Your task to perform on an android device: Search for logitech g502 on ebay, select the first entry, add it to the cart, then select checkout. Image 0: 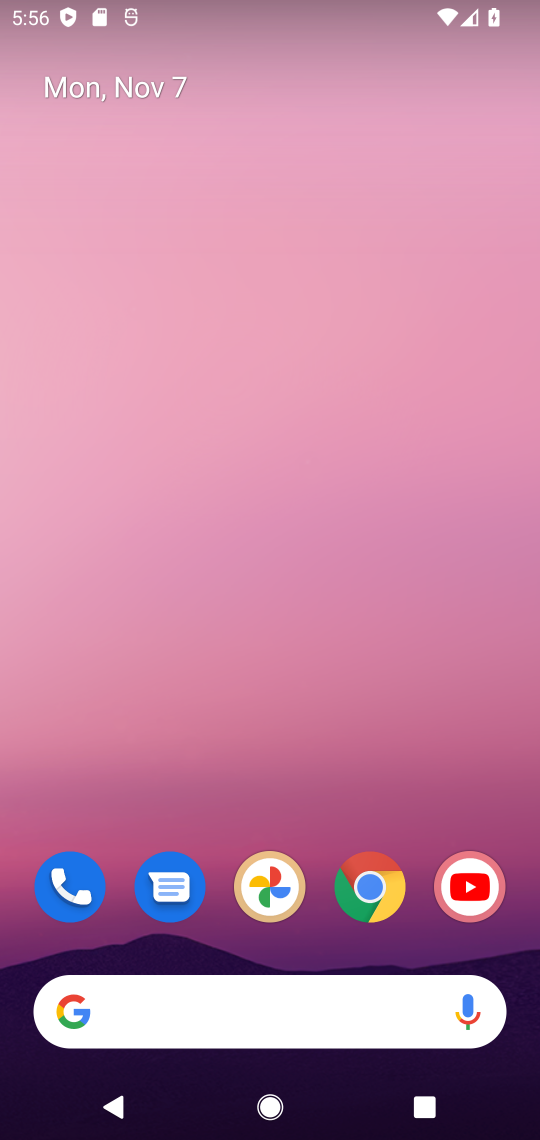
Step 0: click (377, 857)
Your task to perform on an android device: Search for logitech g502 on ebay, select the first entry, add it to the cart, then select checkout. Image 1: 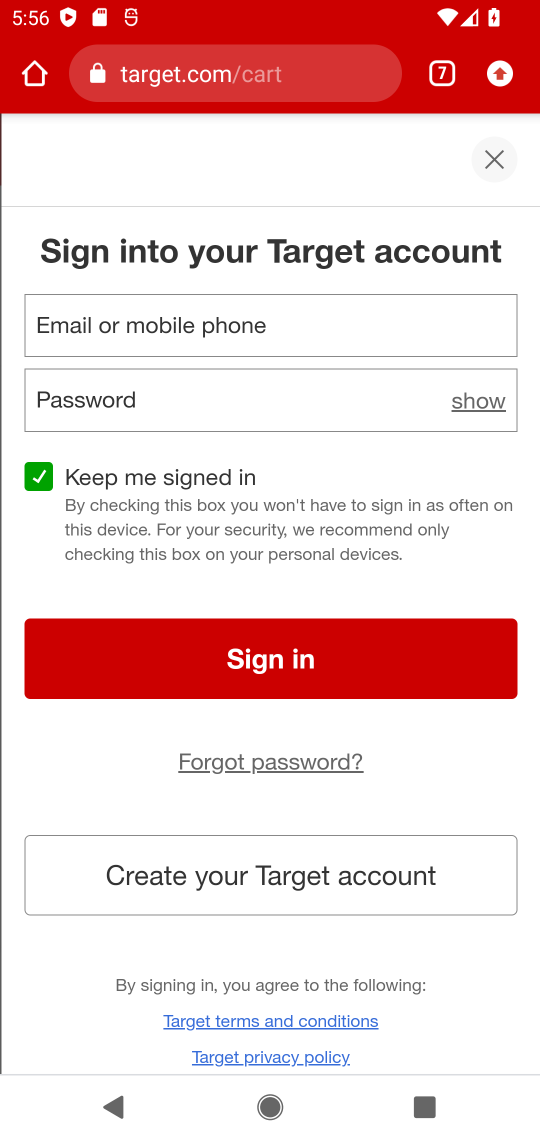
Step 1: click (442, 60)
Your task to perform on an android device: Search for logitech g502 on ebay, select the first entry, add it to the cart, then select checkout. Image 2: 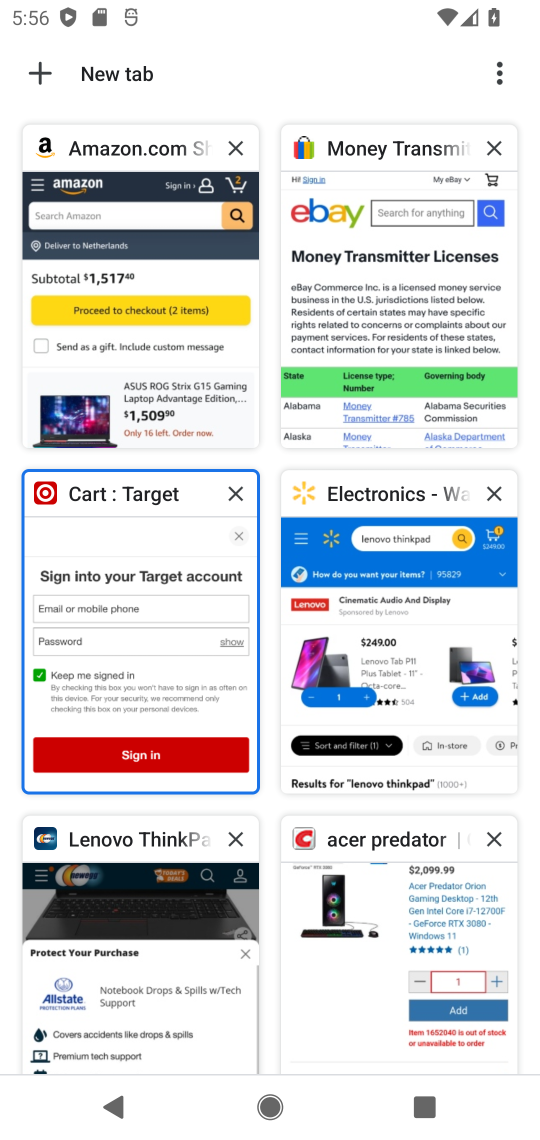
Step 2: click (326, 228)
Your task to perform on an android device: Search for logitech g502 on ebay, select the first entry, add it to the cart, then select checkout. Image 3: 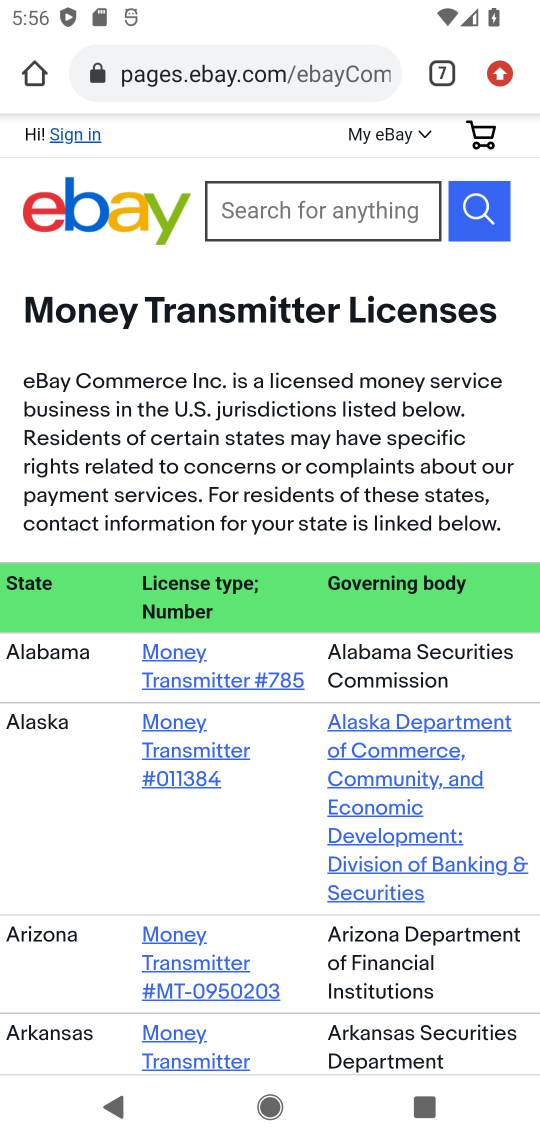
Step 3: click (294, 210)
Your task to perform on an android device: Search for logitech g502 on ebay, select the first entry, add it to the cart, then select checkout. Image 4: 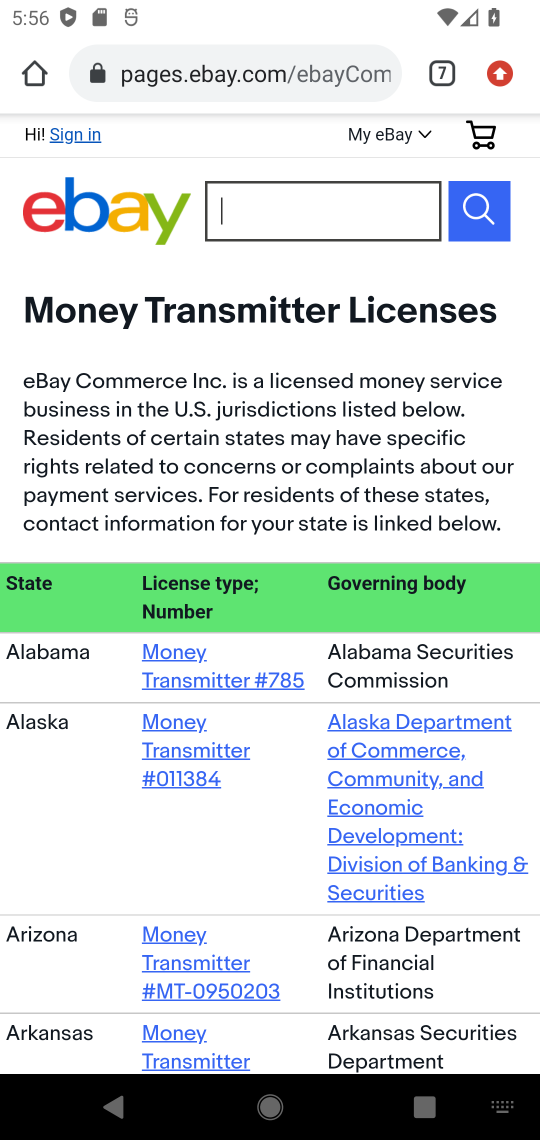
Step 4: type "logitech g502"
Your task to perform on an android device: Search for logitech g502 on ebay, select the first entry, add it to the cart, then select checkout. Image 5: 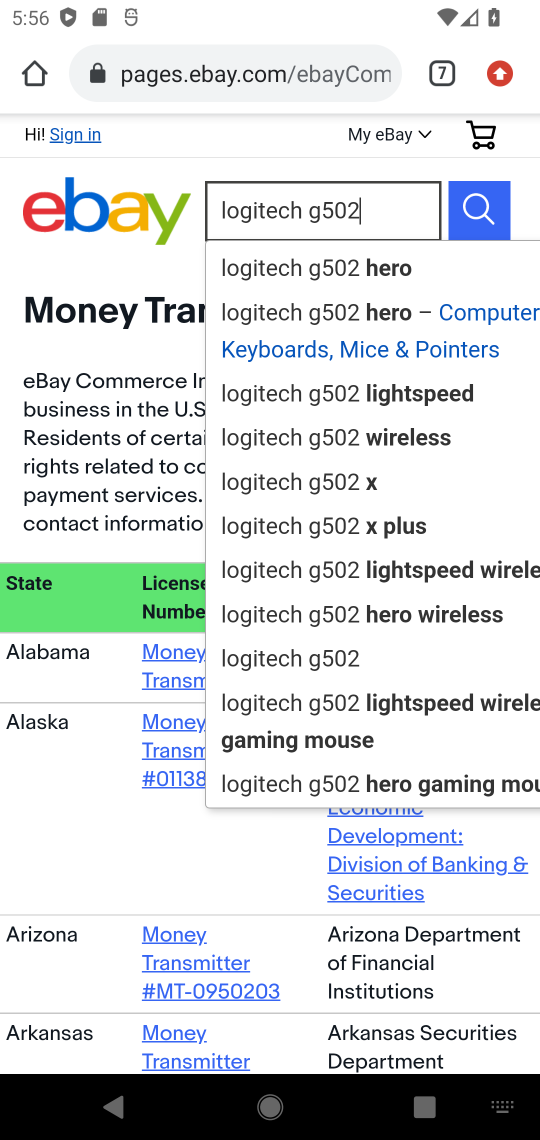
Step 5: click (343, 306)
Your task to perform on an android device: Search for logitech g502 on ebay, select the first entry, add it to the cart, then select checkout. Image 6: 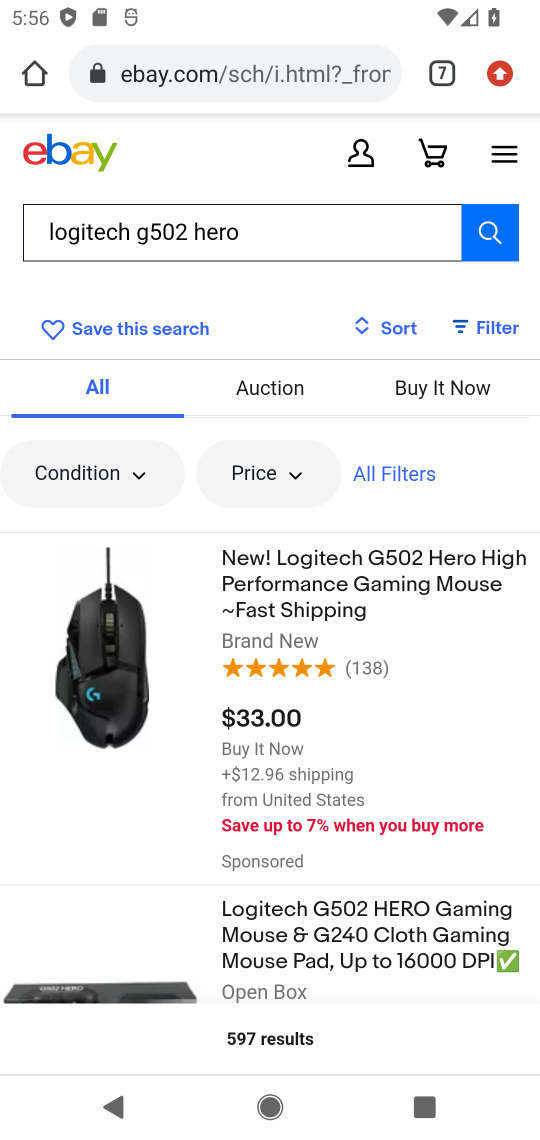
Step 6: click (329, 582)
Your task to perform on an android device: Search for logitech g502 on ebay, select the first entry, add it to the cart, then select checkout. Image 7: 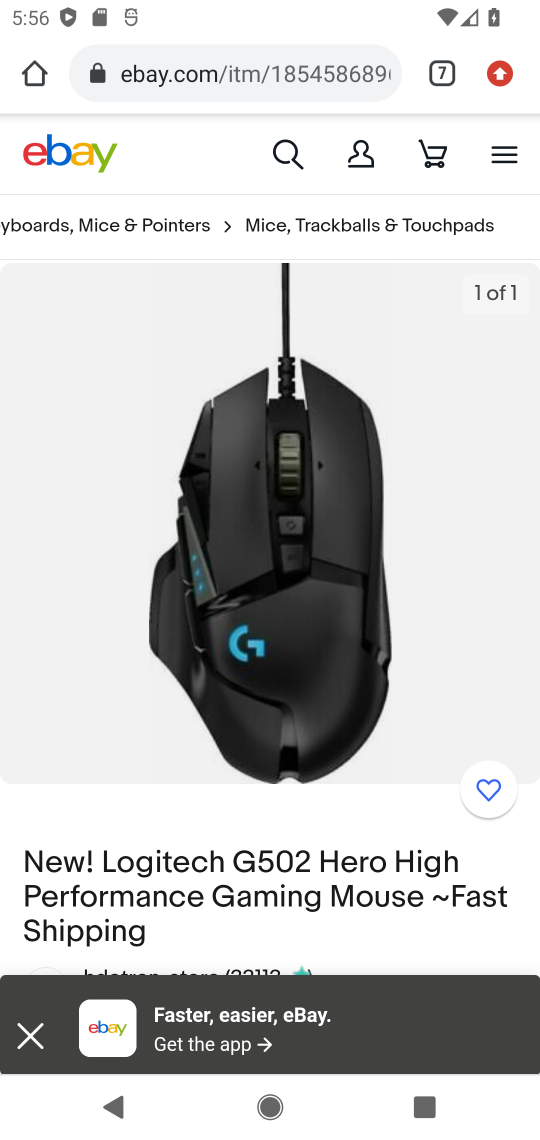
Step 7: drag from (372, 968) to (494, 349)
Your task to perform on an android device: Search for logitech g502 on ebay, select the first entry, add it to the cart, then select checkout. Image 8: 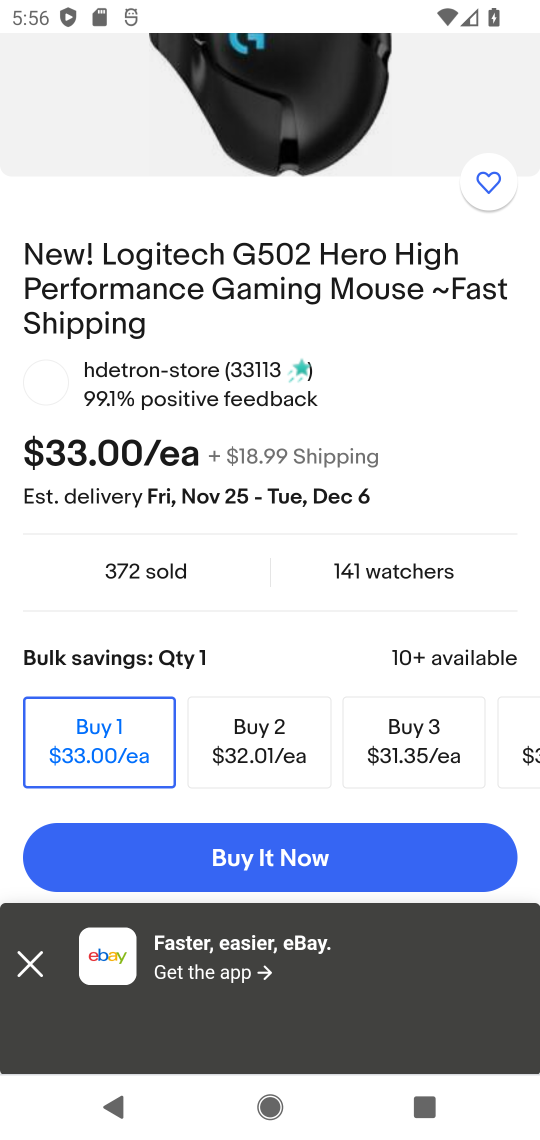
Step 8: drag from (289, 784) to (263, 329)
Your task to perform on an android device: Search for logitech g502 on ebay, select the first entry, add it to the cart, then select checkout. Image 9: 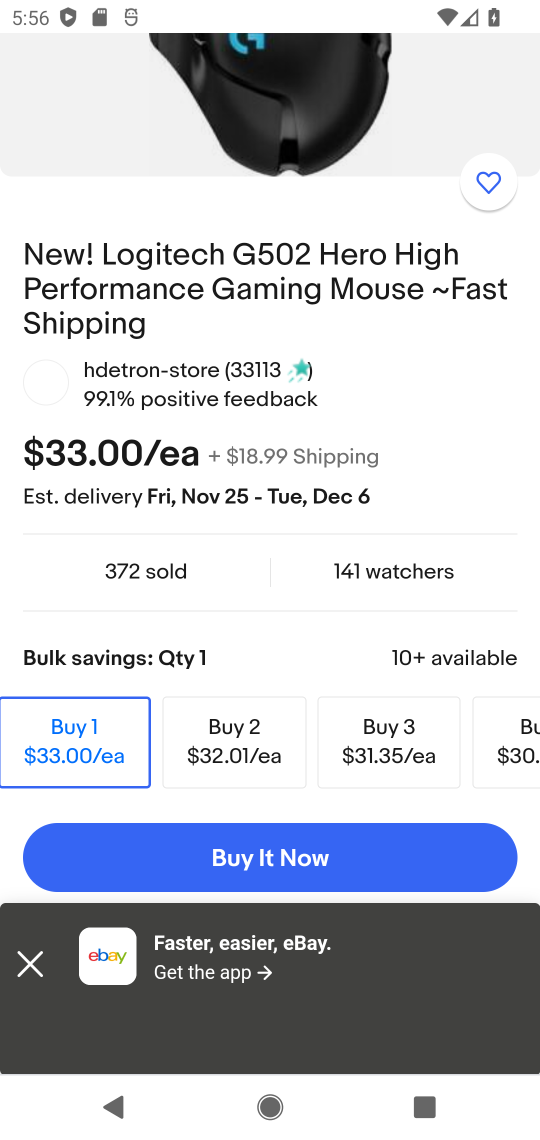
Step 9: drag from (254, 805) to (358, 162)
Your task to perform on an android device: Search for logitech g502 on ebay, select the first entry, add it to the cart, then select checkout. Image 10: 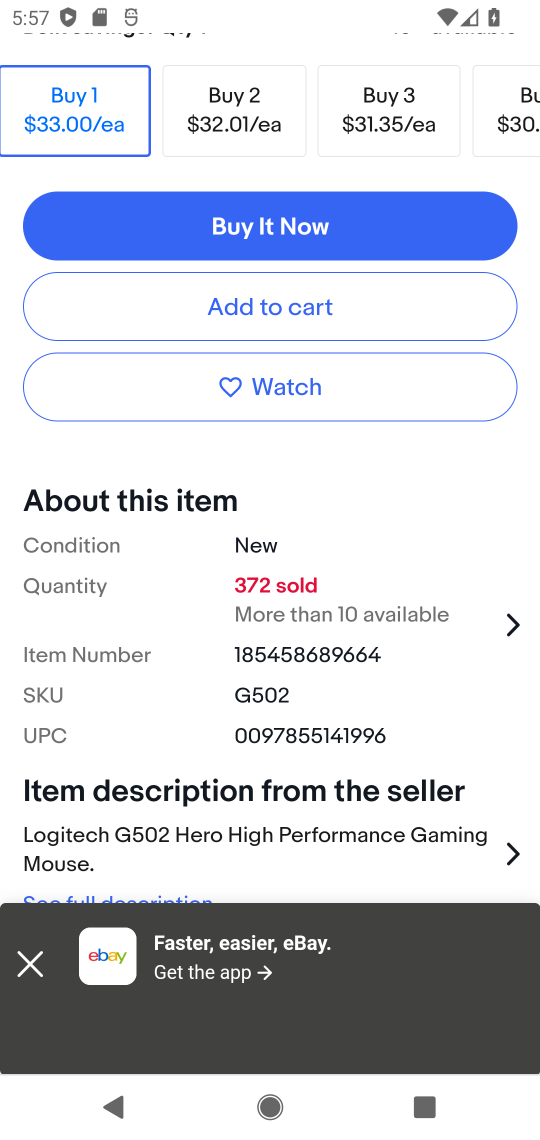
Step 10: click (287, 292)
Your task to perform on an android device: Search for logitech g502 on ebay, select the first entry, add it to the cart, then select checkout. Image 11: 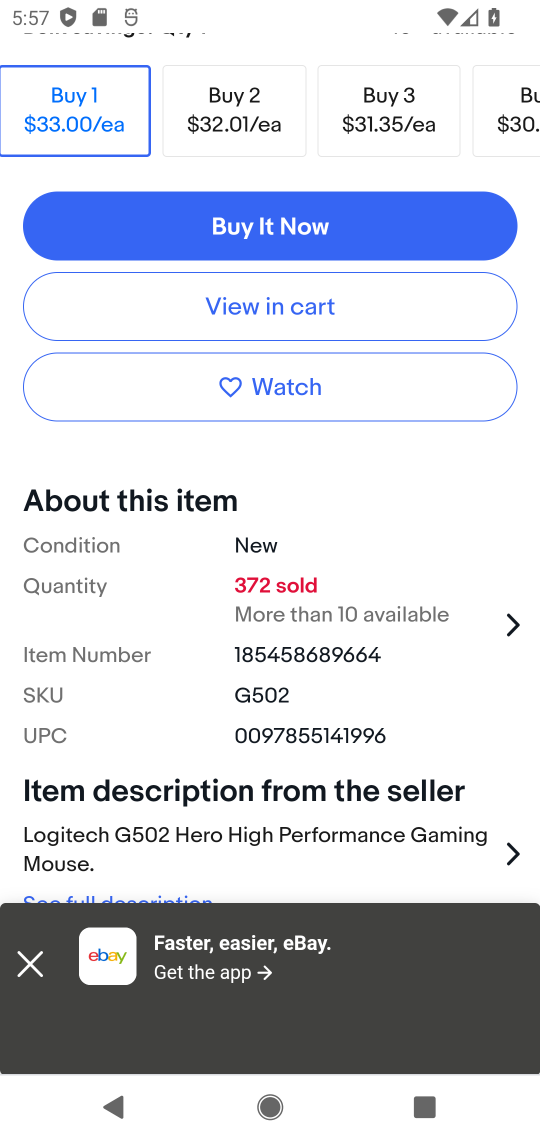
Step 11: click (318, 305)
Your task to perform on an android device: Search for logitech g502 on ebay, select the first entry, add it to the cart, then select checkout. Image 12: 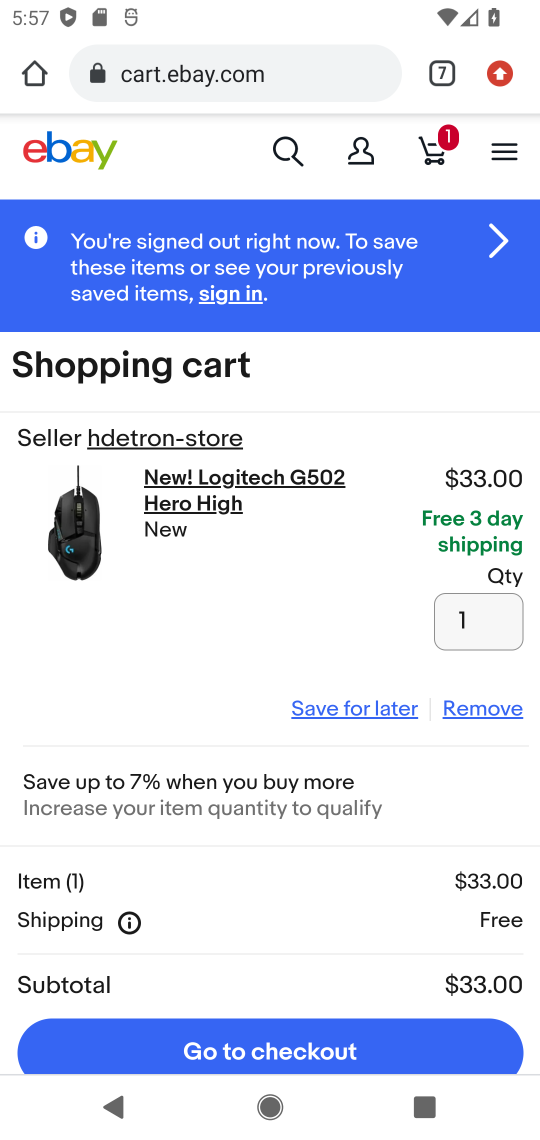
Step 12: click (256, 1044)
Your task to perform on an android device: Search for logitech g502 on ebay, select the first entry, add it to the cart, then select checkout. Image 13: 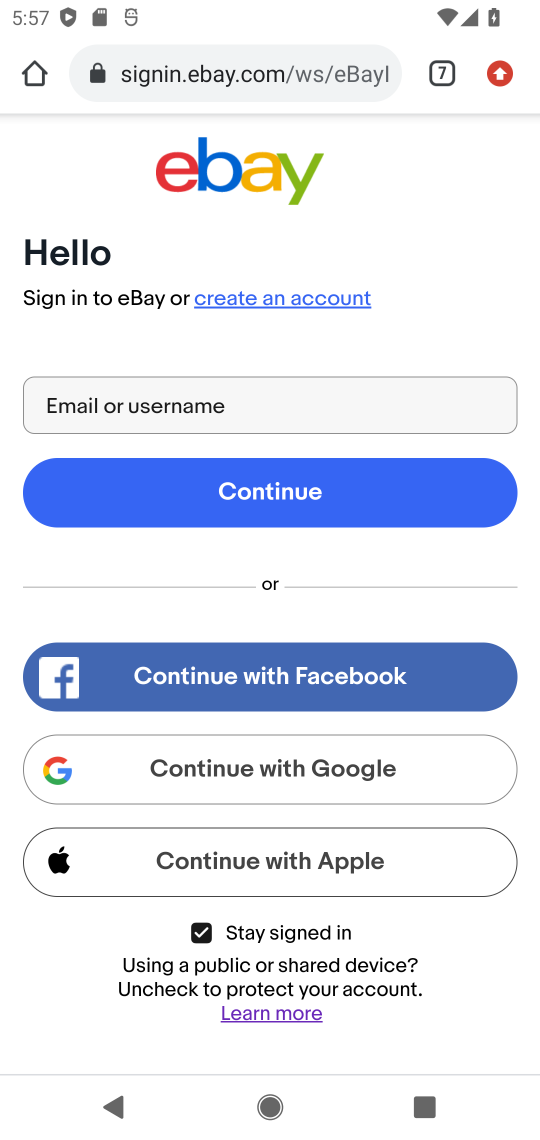
Step 13: task complete